Your task to perform on an android device: set the timer Image 0: 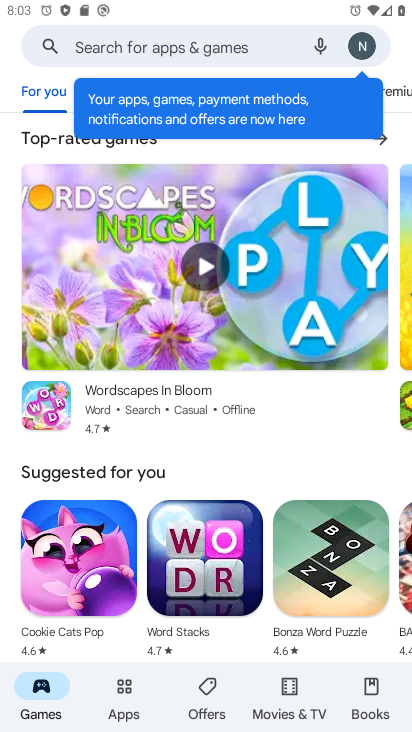
Step 0: press home button
Your task to perform on an android device: set the timer Image 1: 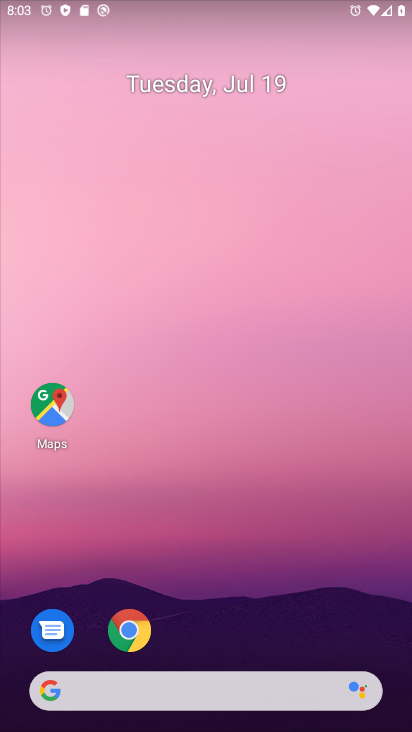
Step 1: drag from (244, 489) to (237, 218)
Your task to perform on an android device: set the timer Image 2: 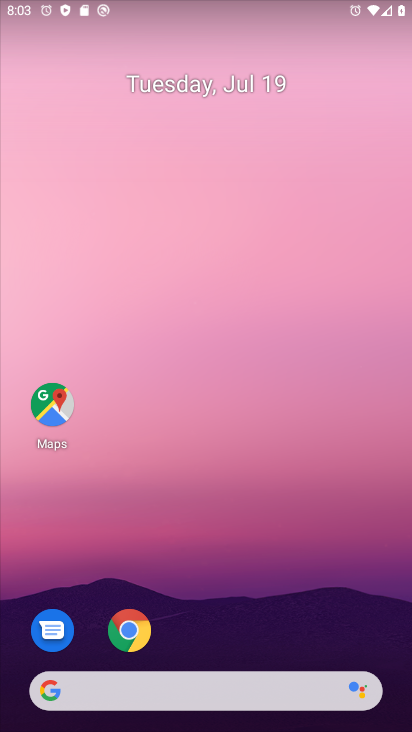
Step 2: drag from (284, 526) to (302, 152)
Your task to perform on an android device: set the timer Image 3: 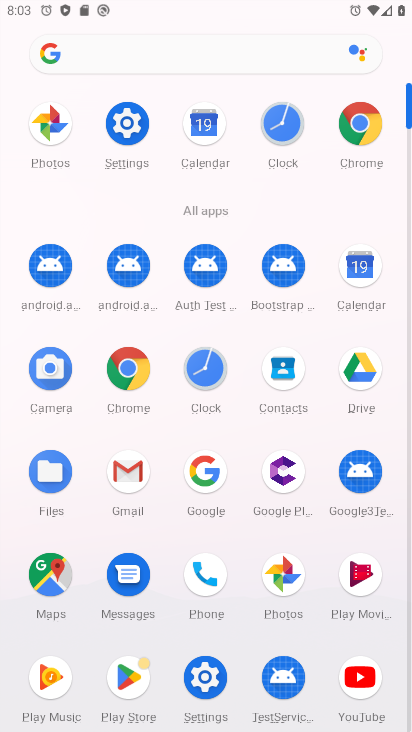
Step 3: click (211, 359)
Your task to perform on an android device: set the timer Image 4: 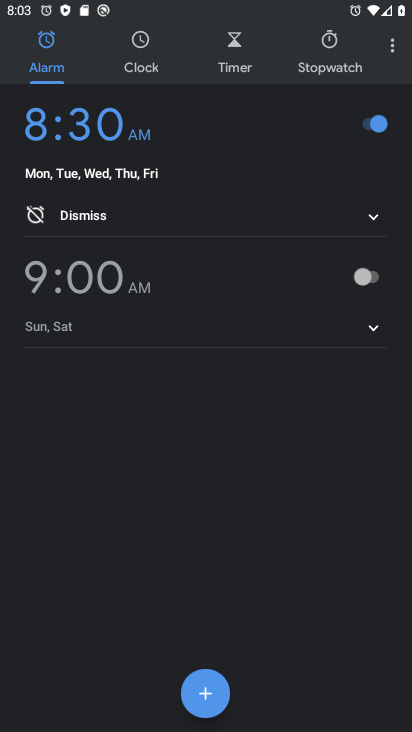
Step 4: click (228, 30)
Your task to perform on an android device: set the timer Image 5: 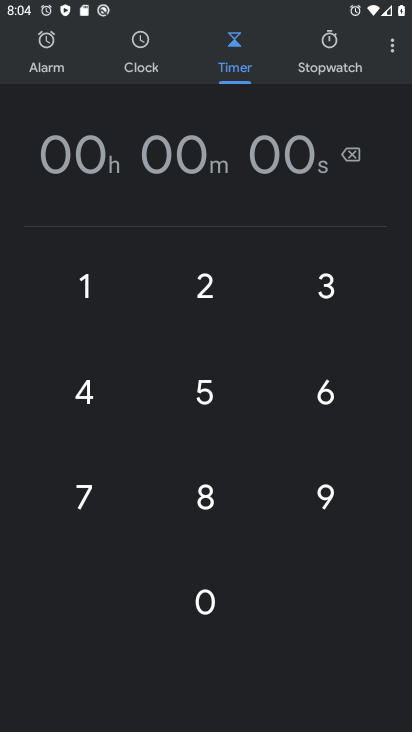
Step 5: click (202, 399)
Your task to perform on an android device: set the timer Image 6: 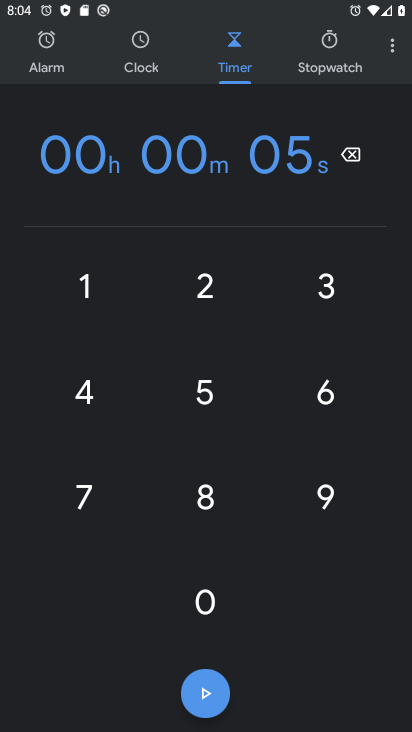
Step 6: click (205, 288)
Your task to perform on an android device: set the timer Image 7: 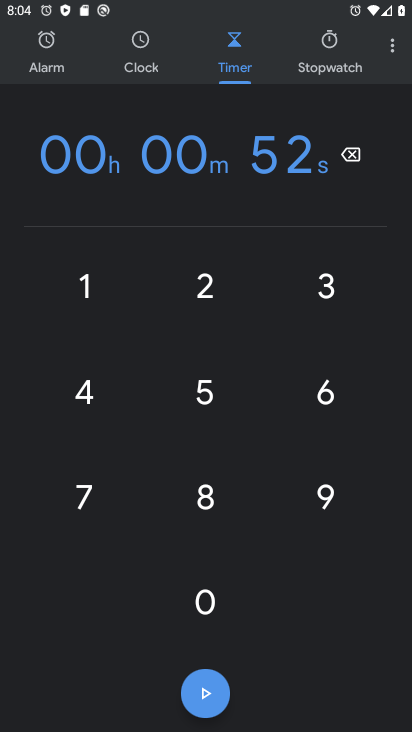
Step 7: task complete